Your task to perform on an android device: See recent photos Image 0: 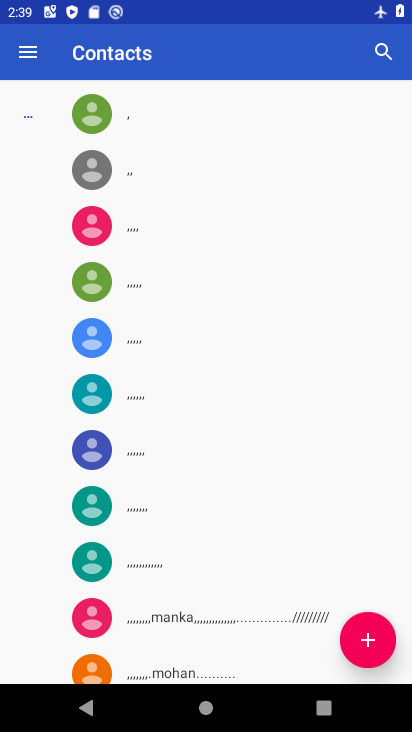
Step 0: press home button
Your task to perform on an android device: See recent photos Image 1: 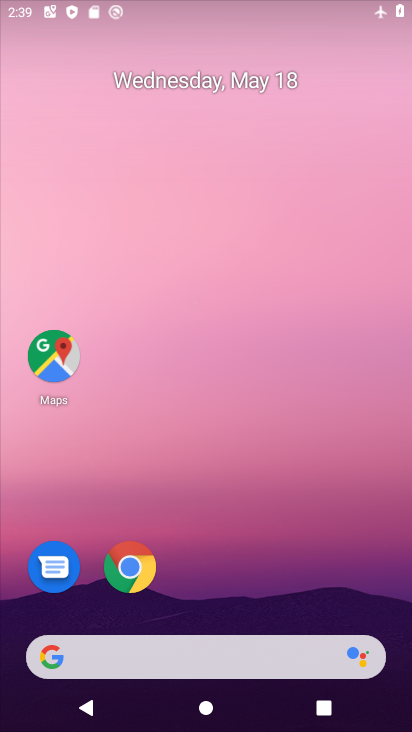
Step 1: drag from (231, 443) to (216, 221)
Your task to perform on an android device: See recent photos Image 2: 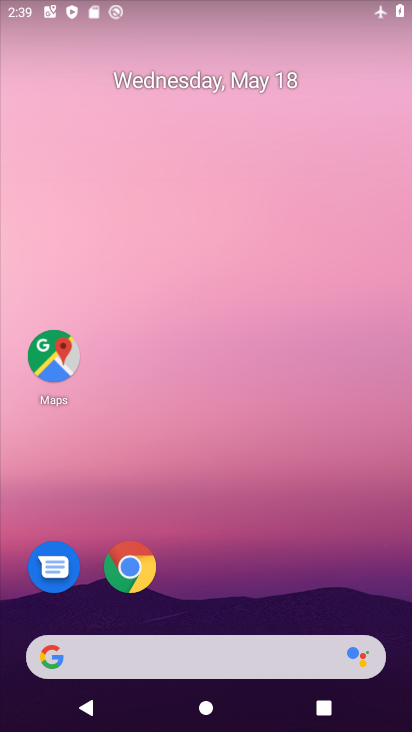
Step 2: drag from (209, 602) to (277, 232)
Your task to perform on an android device: See recent photos Image 3: 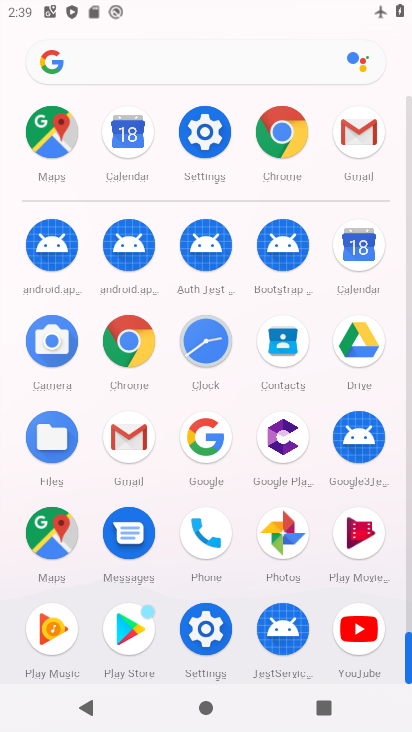
Step 3: click (296, 528)
Your task to perform on an android device: See recent photos Image 4: 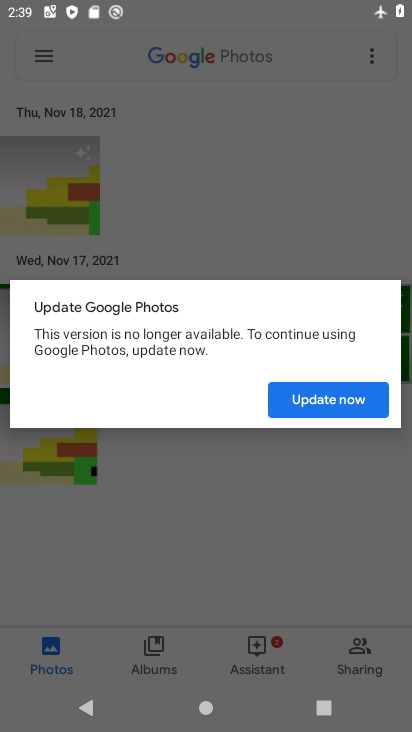
Step 4: click (69, 196)
Your task to perform on an android device: See recent photos Image 5: 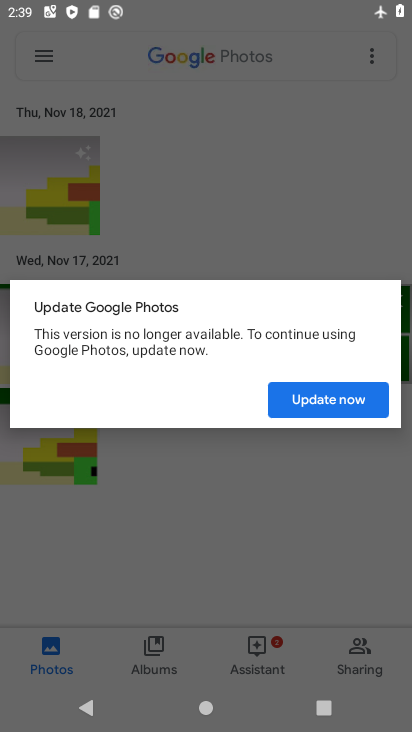
Step 5: click (343, 409)
Your task to perform on an android device: See recent photos Image 6: 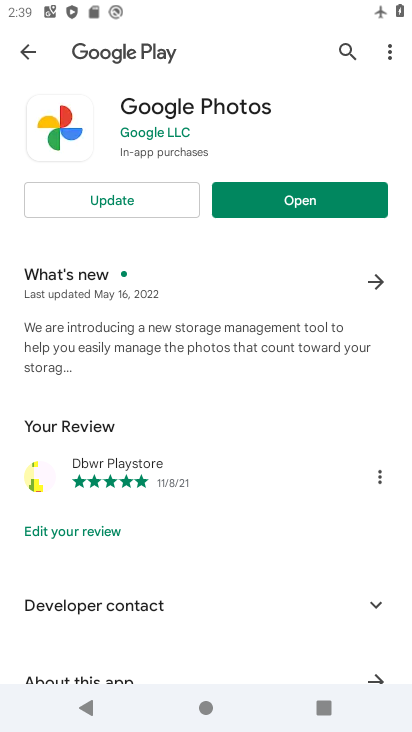
Step 6: press back button
Your task to perform on an android device: See recent photos Image 7: 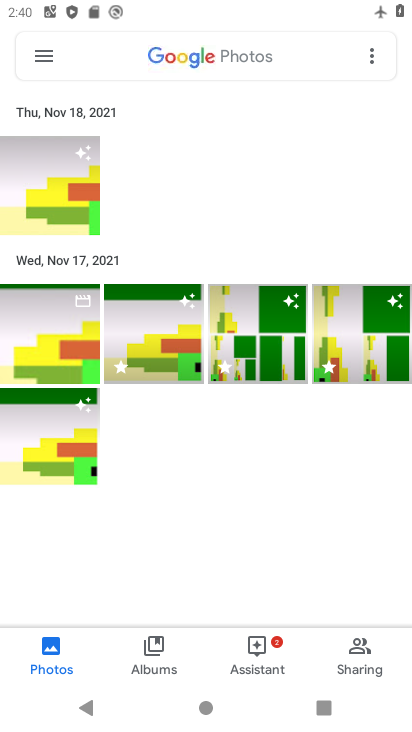
Step 7: click (31, 181)
Your task to perform on an android device: See recent photos Image 8: 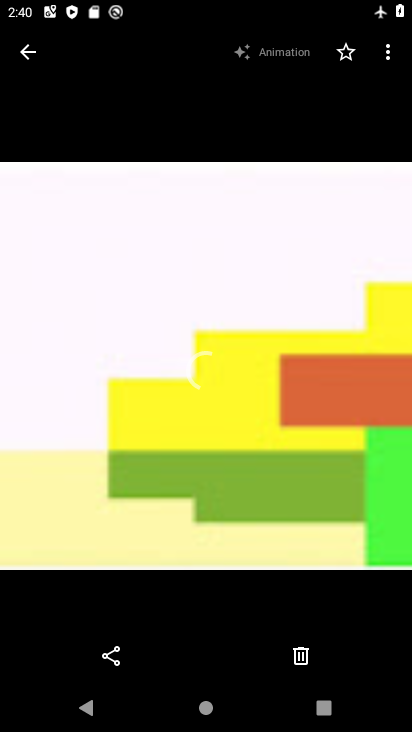
Step 8: task complete